Your task to perform on an android device: change the upload size in google photos Image 0: 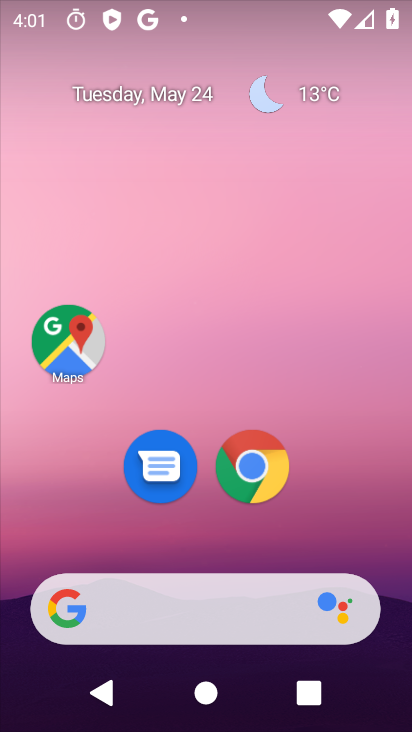
Step 0: drag from (325, 281) to (316, 62)
Your task to perform on an android device: change the upload size in google photos Image 1: 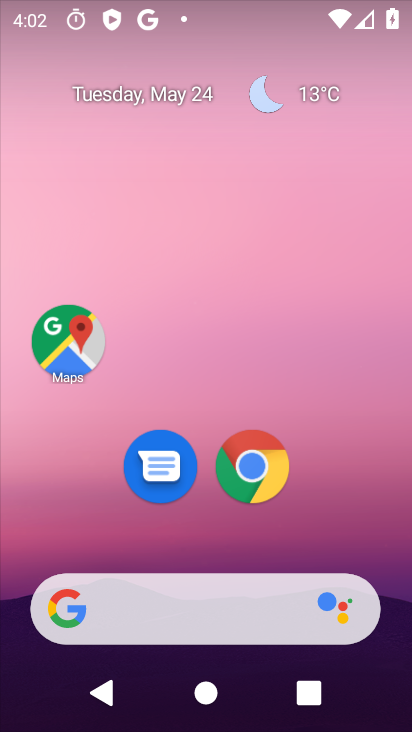
Step 1: drag from (342, 497) to (307, 57)
Your task to perform on an android device: change the upload size in google photos Image 2: 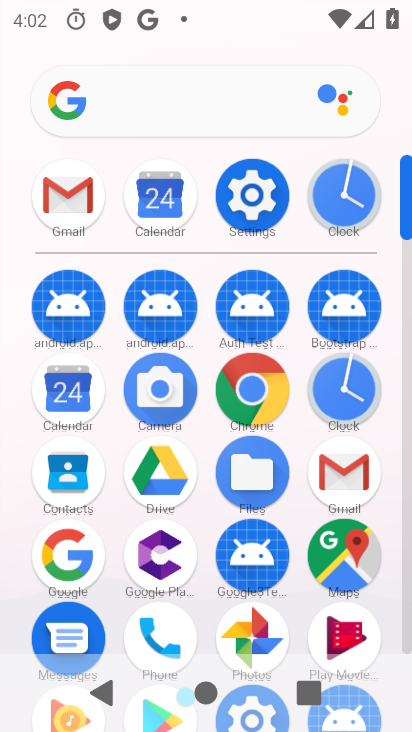
Step 2: click (269, 627)
Your task to perform on an android device: change the upload size in google photos Image 3: 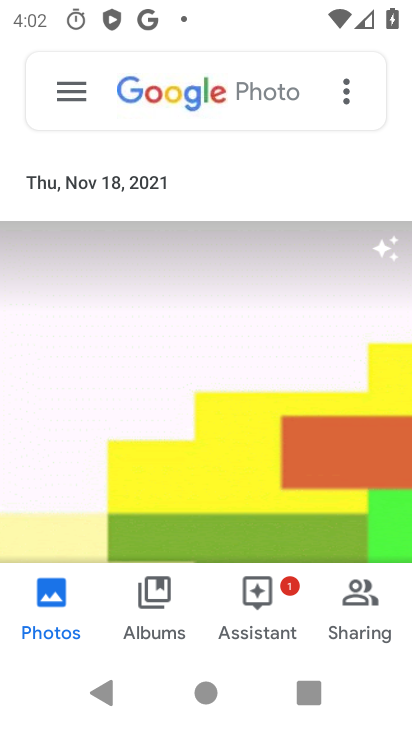
Step 3: click (79, 98)
Your task to perform on an android device: change the upload size in google photos Image 4: 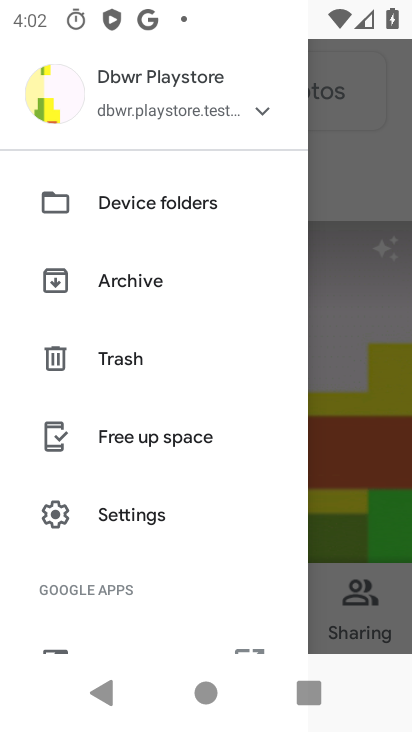
Step 4: click (111, 533)
Your task to perform on an android device: change the upload size in google photos Image 5: 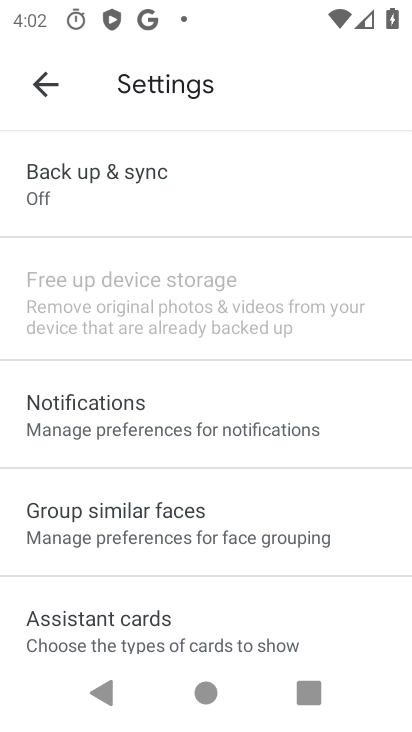
Step 5: click (195, 177)
Your task to perform on an android device: change the upload size in google photos Image 6: 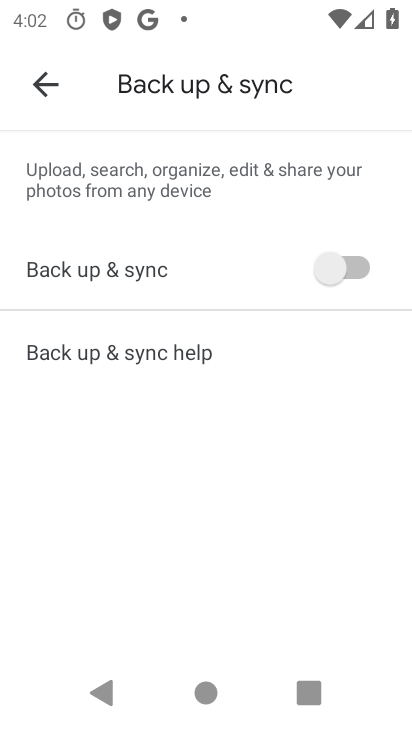
Step 6: click (195, 184)
Your task to perform on an android device: change the upload size in google photos Image 7: 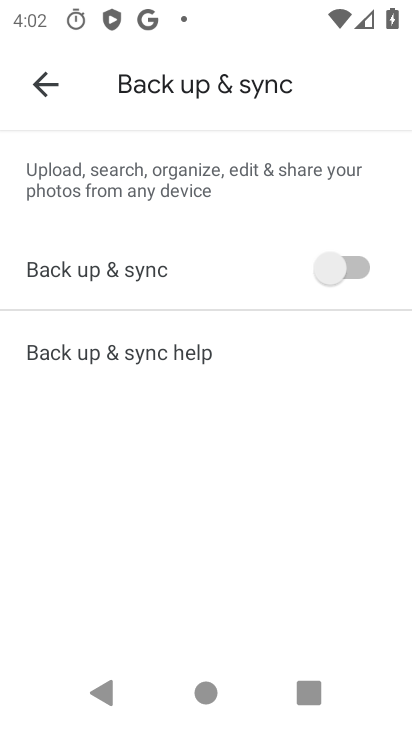
Step 7: click (264, 267)
Your task to perform on an android device: change the upload size in google photos Image 8: 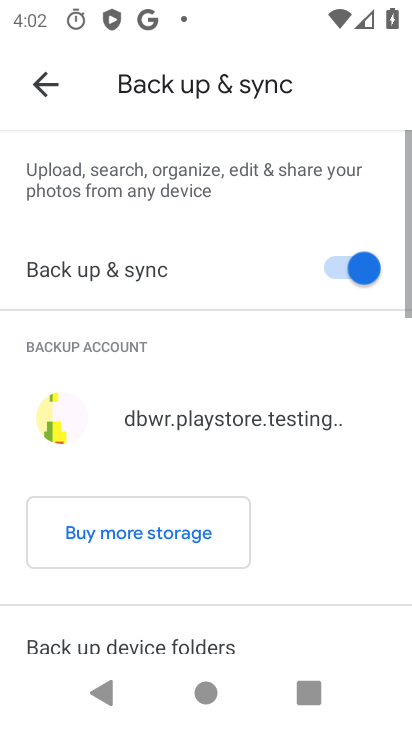
Step 8: drag from (221, 481) to (234, 81)
Your task to perform on an android device: change the upload size in google photos Image 9: 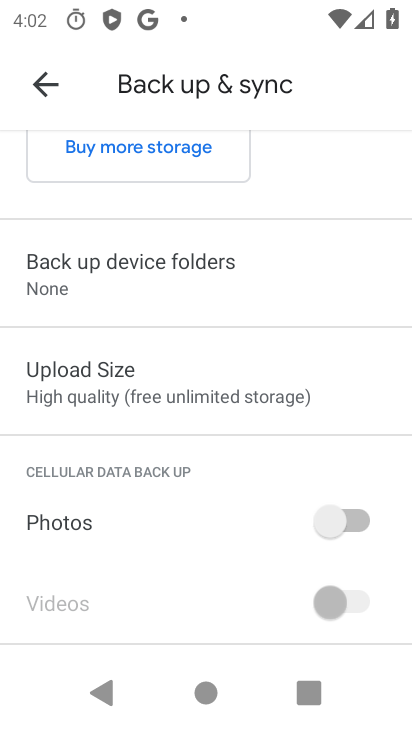
Step 9: click (160, 373)
Your task to perform on an android device: change the upload size in google photos Image 10: 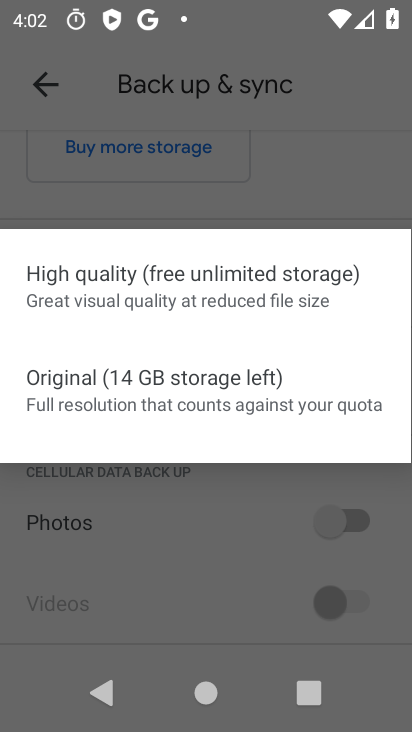
Step 10: click (156, 417)
Your task to perform on an android device: change the upload size in google photos Image 11: 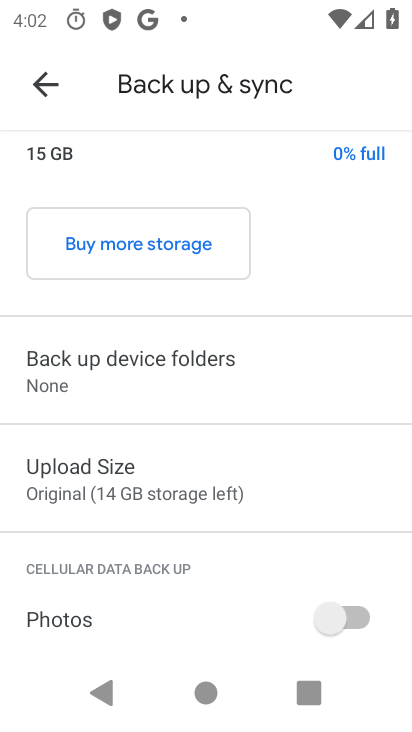
Step 11: task complete